Your task to perform on an android device: Open notification settings Image 0: 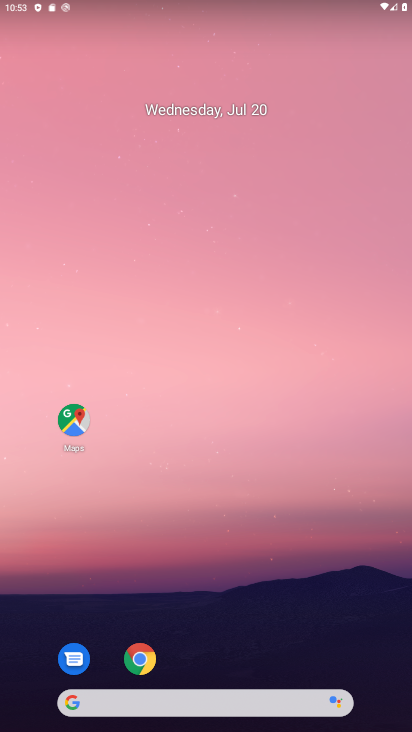
Step 0: drag from (221, 661) to (240, 81)
Your task to perform on an android device: Open notification settings Image 1: 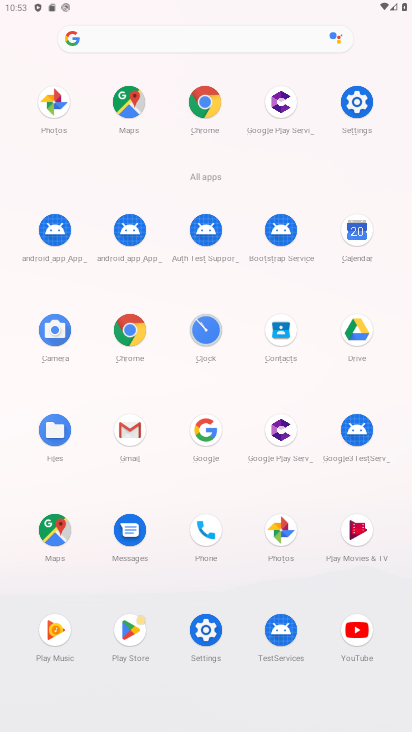
Step 1: click (200, 635)
Your task to perform on an android device: Open notification settings Image 2: 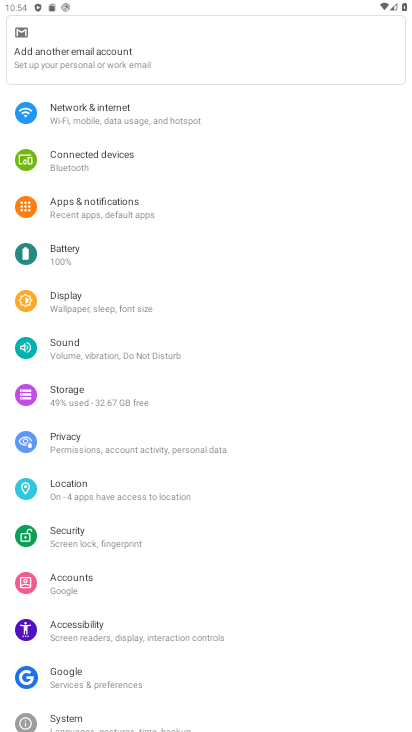
Step 2: click (128, 203)
Your task to perform on an android device: Open notification settings Image 3: 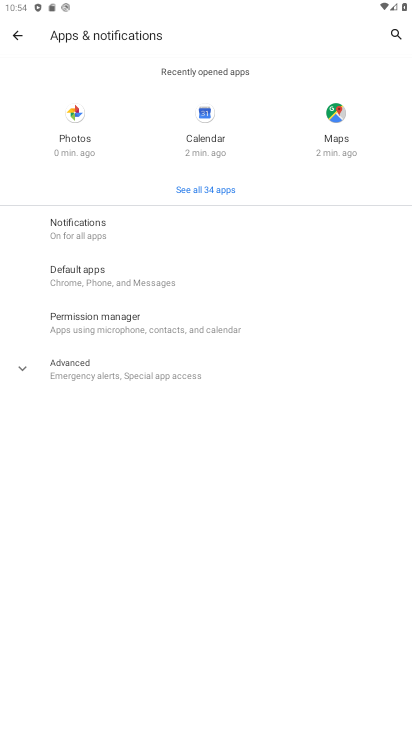
Step 3: click (115, 243)
Your task to perform on an android device: Open notification settings Image 4: 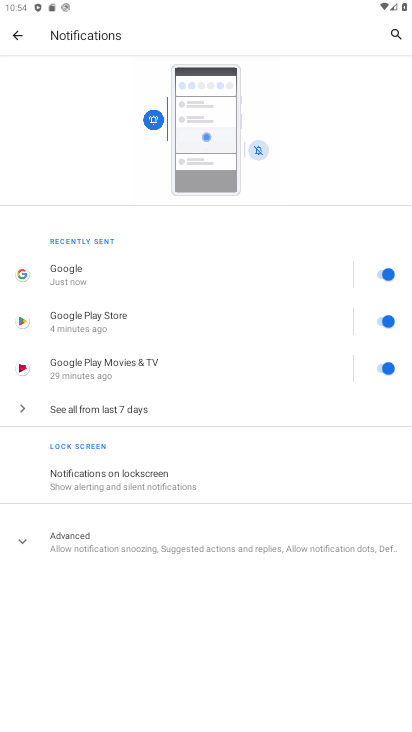
Step 4: task complete